Your task to perform on an android device: Go to calendar. Show me events next week Image 0: 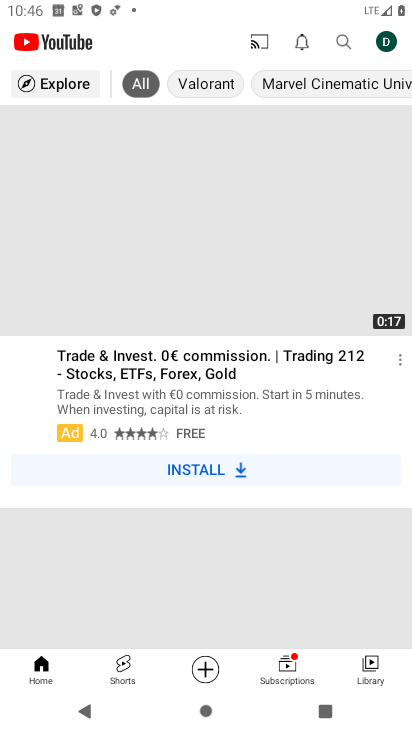
Step 0: press home button
Your task to perform on an android device: Go to calendar. Show me events next week Image 1: 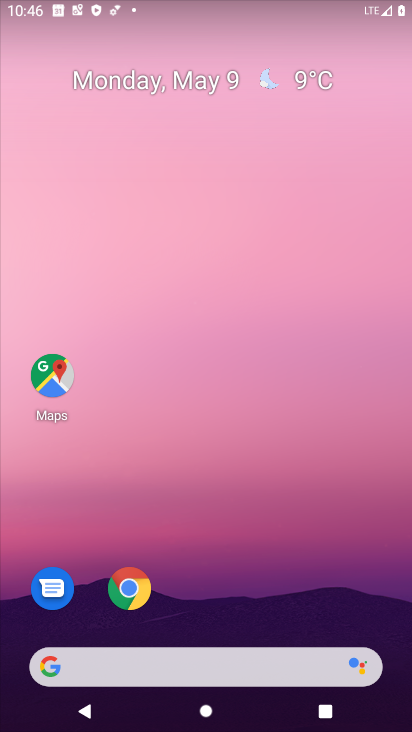
Step 1: drag from (148, 661) to (277, 107)
Your task to perform on an android device: Go to calendar. Show me events next week Image 2: 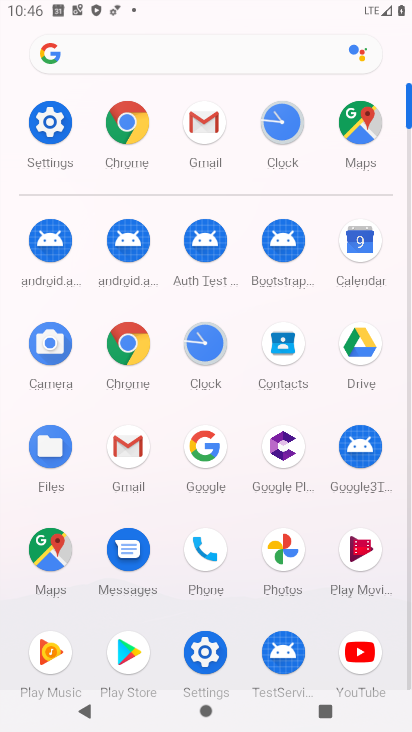
Step 2: click (356, 251)
Your task to perform on an android device: Go to calendar. Show me events next week Image 3: 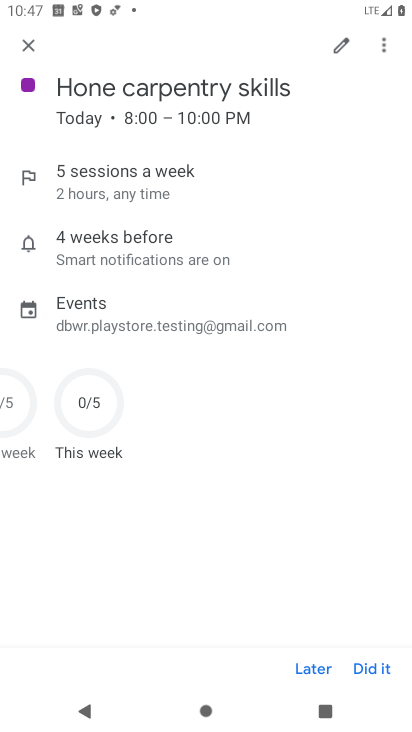
Step 3: click (26, 49)
Your task to perform on an android device: Go to calendar. Show me events next week Image 4: 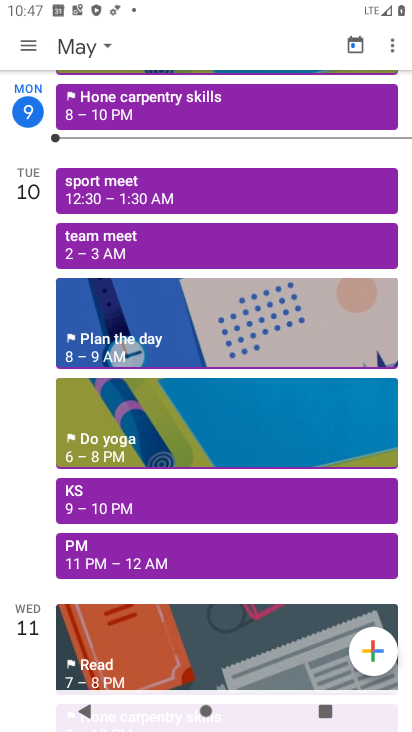
Step 4: click (73, 50)
Your task to perform on an android device: Go to calendar. Show me events next week Image 5: 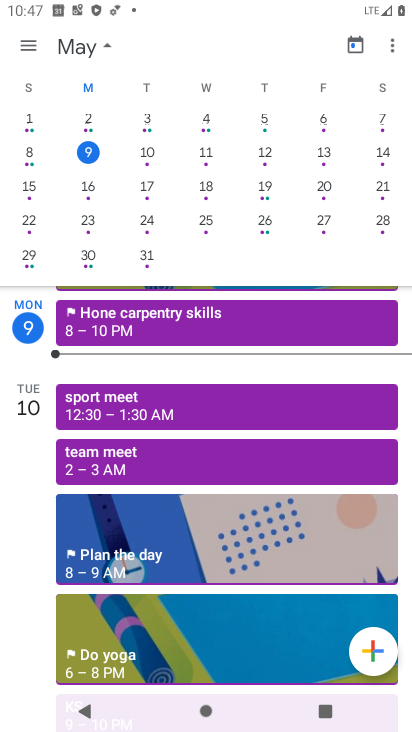
Step 5: click (24, 190)
Your task to perform on an android device: Go to calendar. Show me events next week Image 6: 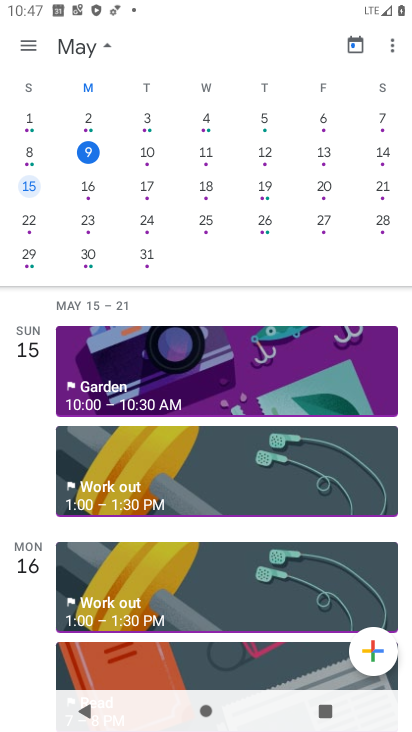
Step 6: click (30, 47)
Your task to perform on an android device: Go to calendar. Show me events next week Image 7: 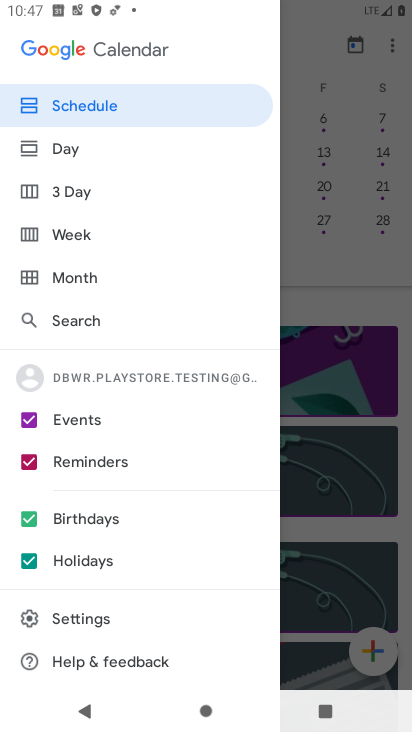
Step 7: click (84, 237)
Your task to perform on an android device: Go to calendar. Show me events next week Image 8: 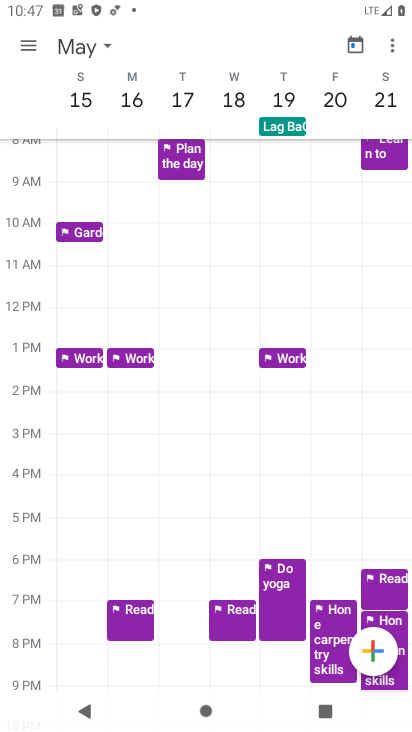
Step 8: task complete